Your task to perform on an android device: Search for Italian restaurants on Maps Image 0: 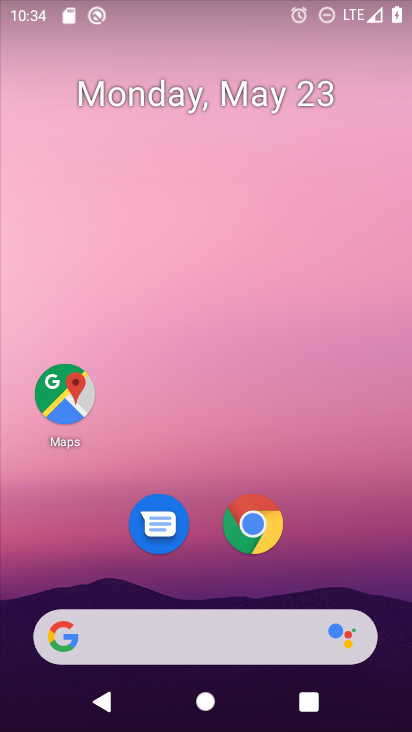
Step 0: click (82, 396)
Your task to perform on an android device: Search for Italian restaurants on Maps Image 1: 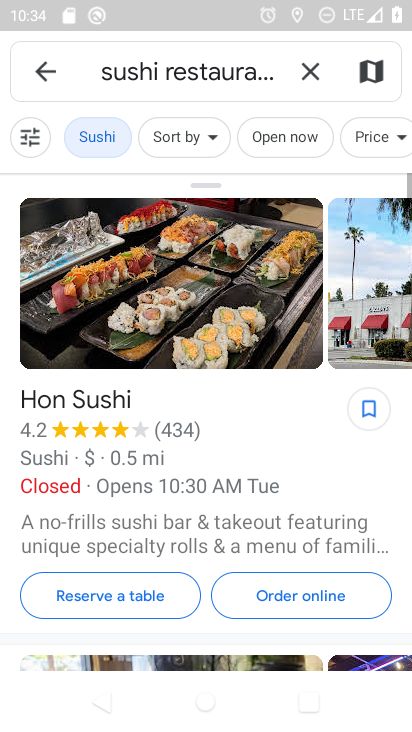
Step 1: click (302, 55)
Your task to perform on an android device: Search for Italian restaurants on Maps Image 2: 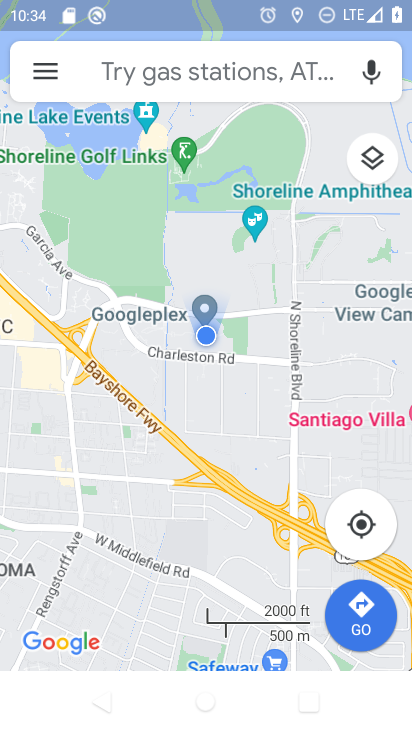
Step 2: click (232, 60)
Your task to perform on an android device: Search for Italian restaurants on Maps Image 3: 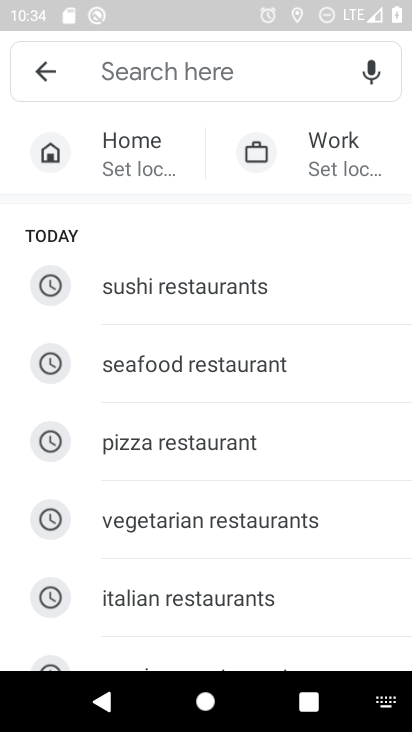
Step 3: click (195, 593)
Your task to perform on an android device: Search for Italian restaurants on Maps Image 4: 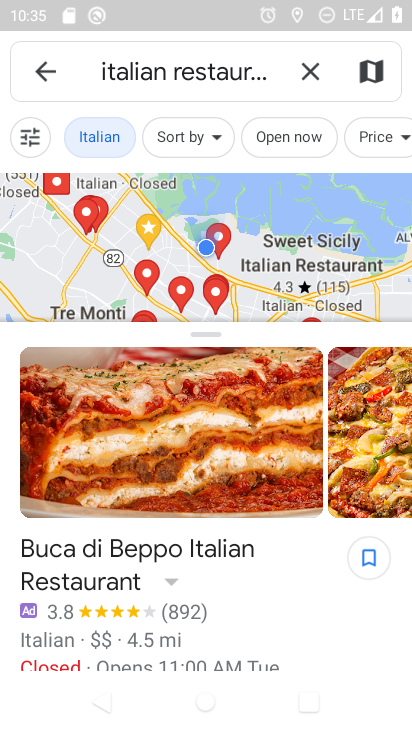
Step 4: task complete